Your task to perform on an android device: When is my next meeting? Image 0: 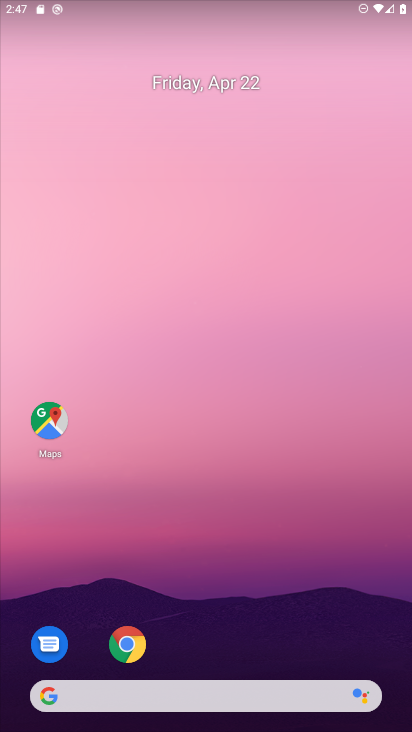
Step 0: drag from (264, 618) to (237, 175)
Your task to perform on an android device: When is my next meeting? Image 1: 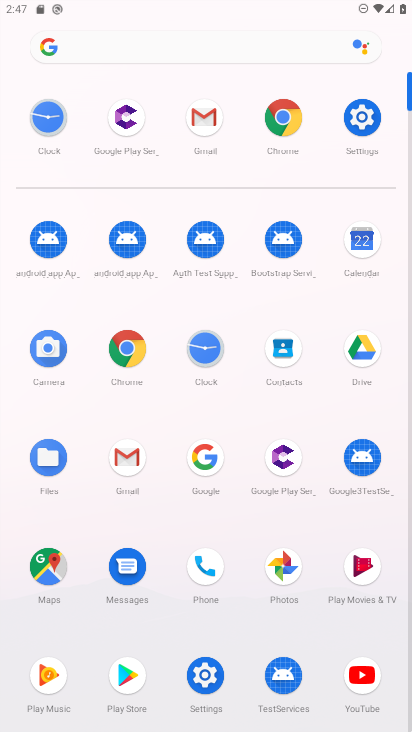
Step 1: click (359, 226)
Your task to perform on an android device: When is my next meeting? Image 2: 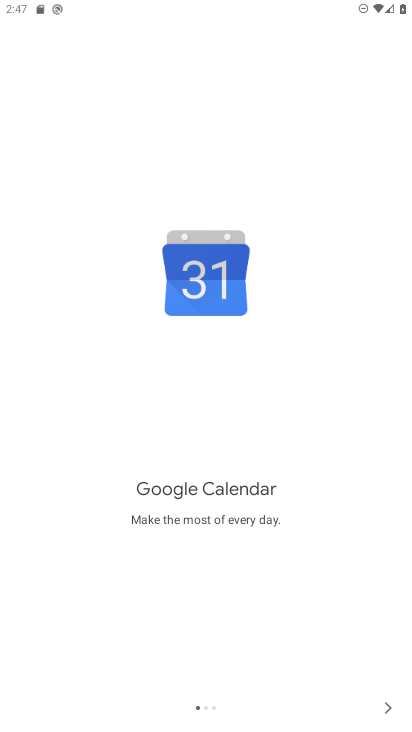
Step 2: click (383, 714)
Your task to perform on an android device: When is my next meeting? Image 3: 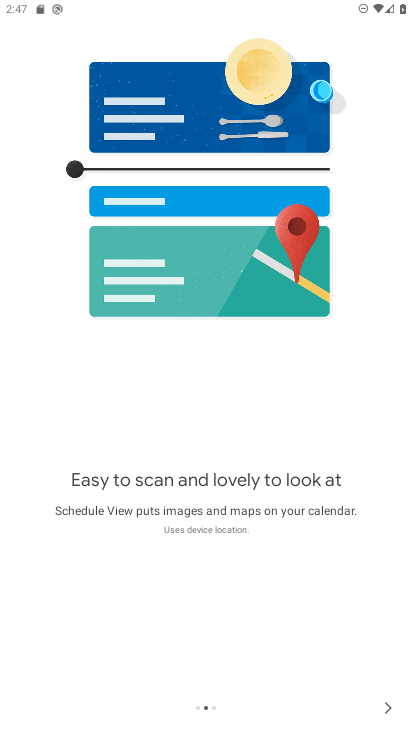
Step 3: click (382, 713)
Your task to perform on an android device: When is my next meeting? Image 4: 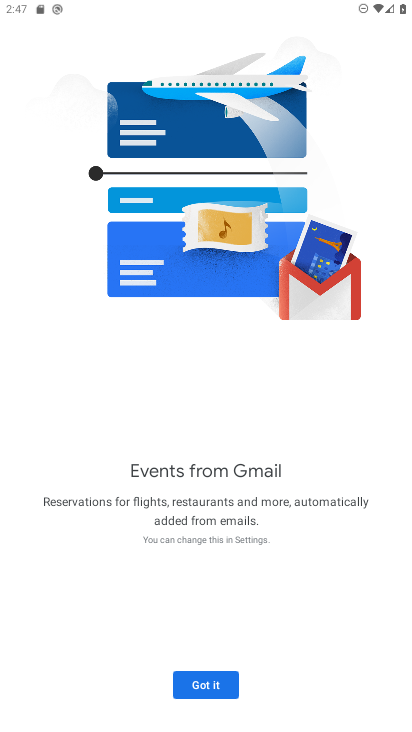
Step 4: click (189, 682)
Your task to perform on an android device: When is my next meeting? Image 5: 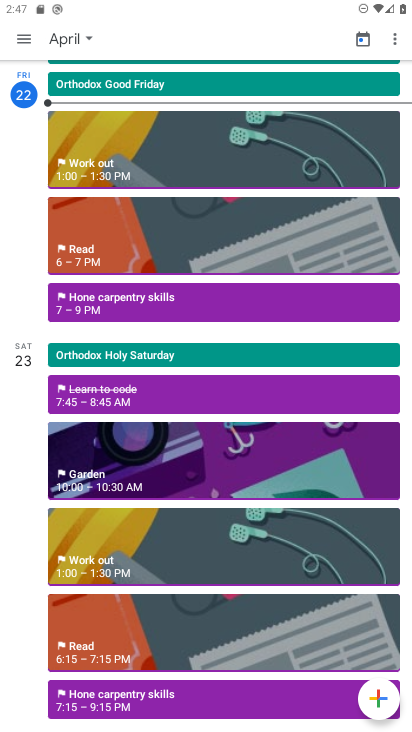
Step 5: task complete